Your task to perform on an android device: open app "DoorDash - Dasher" (install if not already installed) and enter user name: "resistor@inbox.com" and password: "cholera" Image 0: 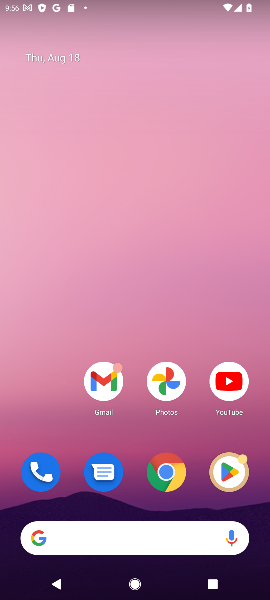
Step 0: click (229, 470)
Your task to perform on an android device: open app "DoorDash - Dasher" (install if not already installed) and enter user name: "resistor@inbox.com" and password: "cholera" Image 1: 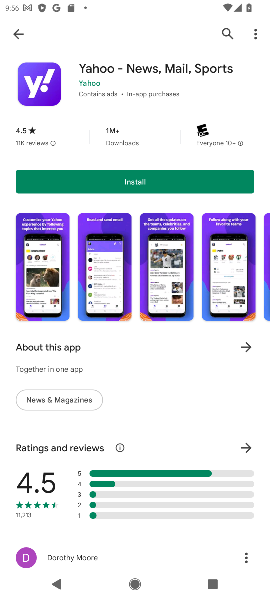
Step 1: click (229, 32)
Your task to perform on an android device: open app "DoorDash - Dasher" (install if not already installed) and enter user name: "resistor@inbox.com" and password: "cholera" Image 2: 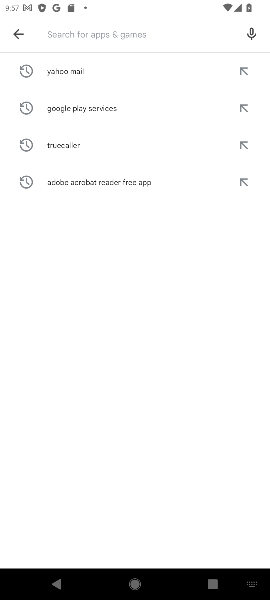
Step 2: type "doordash"
Your task to perform on an android device: open app "DoorDash - Dasher" (install if not already installed) and enter user name: "resistor@inbox.com" and password: "cholera" Image 3: 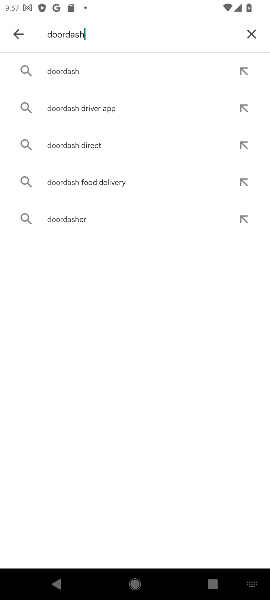
Step 3: click (99, 72)
Your task to perform on an android device: open app "DoorDash - Dasher" (install if not already installed) and enter user name: "resistor@inbox.com" and password: "cholera" Image 4: 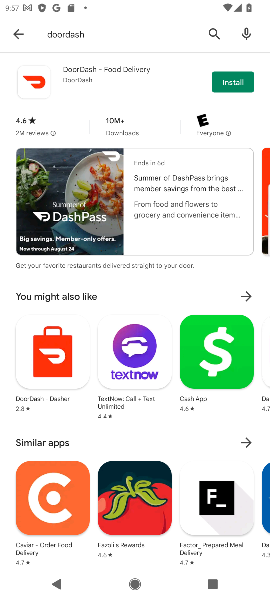
Step 4: click (210, 34)
Your task to perform on an android device: open app "DoorDash - Dasher" (install if not already installed) and enter user name: "resistor@inbox.com" and password: "cholera" Image 5: 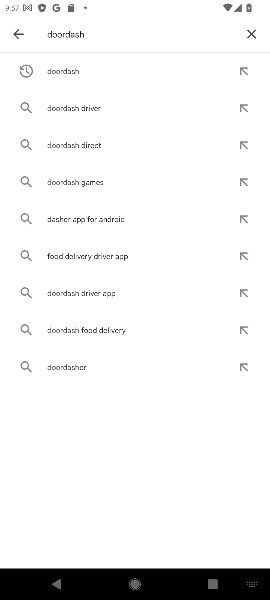
Step 5: type " - dasher"
Your task to perform on an android device: open app "DoorDash - Dasher" (install if not already installed) and enter user name: "resistor@inbox.com" and password: "cholera" Image 6: 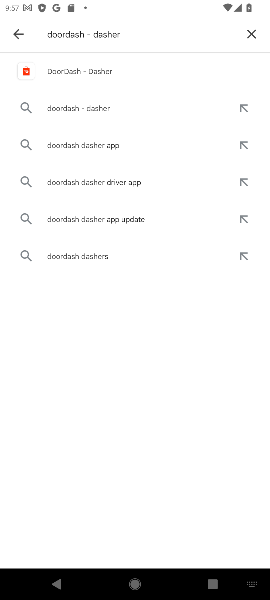
Step 6: click (110, 68)
Your task to perform on an android device: open app "DoorDash - Dasher" (install if not already installed) and enter user name: "resistor@inbox.com" and password: "cholera" Image 7: 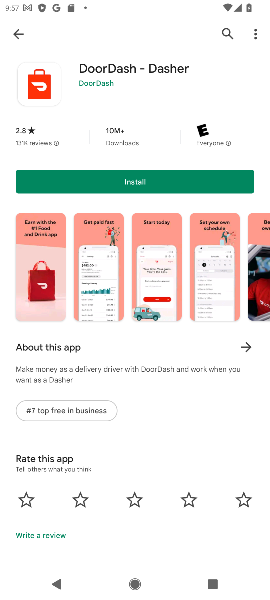
Step 7: click (191, 175)
Your task to perform on an android device: open app "DoorDash - Dasher" (install if not already installed) and enter user name: "resistor@inbox.com" and password: "cholera" Image 8: 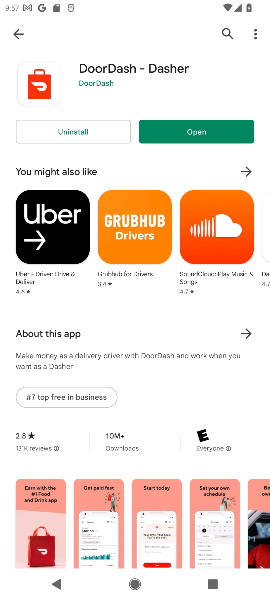
Step 8: click (185, 127)
Your task to perform on an android device: open app "DoorDash - Dasher" (install if not already installed) and enter user name: "resistor@inbox.com" and password: "cholera" Image 9: 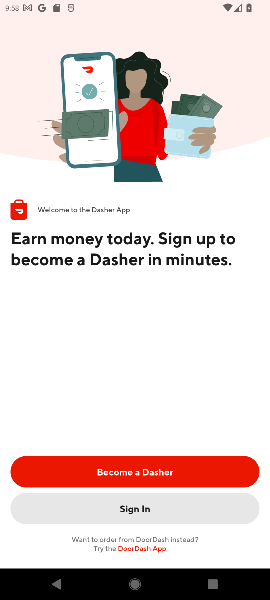
Step 9: click (138, 509)
Your task to perform on an android device: open app "DoorDash - Dasher" (install if not already installed) and enter user name: "resistor@inbox.com" and password: "cholera" Image 10: 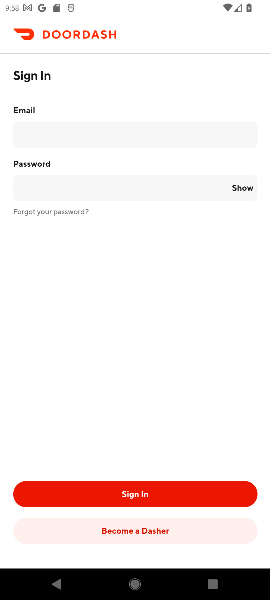
Step 10: click (112, 144)
Your task to perform on an android device: open app "DoorDash - Dasher" (install if not already installed) and enter user name: "resistor@inbox.com" and password: "cholera" Image 11: 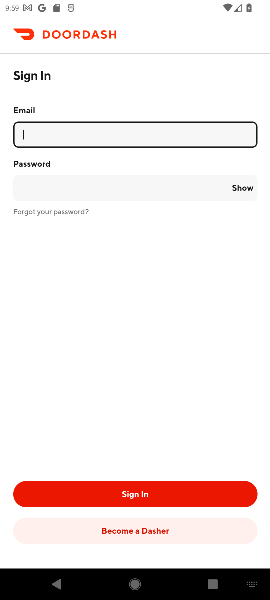
Step 11: type "resistor@inbox.com"
Your task to perform on an android device: open app "DoorDash - Dasher" (install if not already installed) and enter user name: "resistor@inbox.com" and password: "cholera" Image 12: 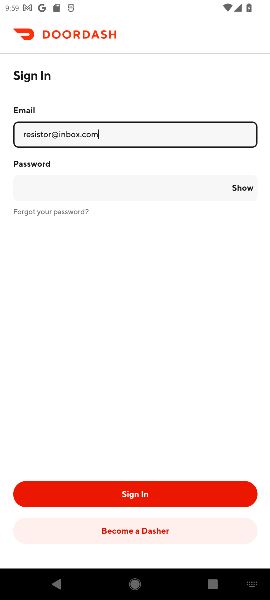
Step 12: click (129, 180)
Your task to perform on an android device: open app "DoorDash - Dasher" (install if not already installed) and enter user name: "resistor@inbox.com" and password: "cholera" Image 13: 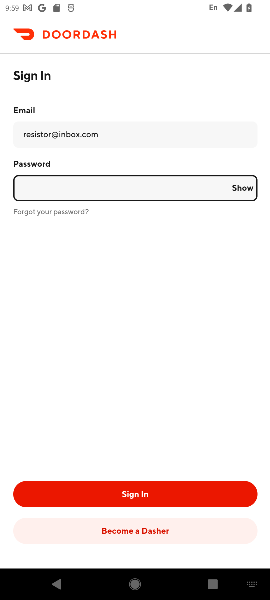
Step 13: type "cholera"
Your task to perform on an android device: open app "DoorDash - Dasher" (install if not already installed) and enter user name: "resistor@inbox.com" and password: "cholera" Image 14: 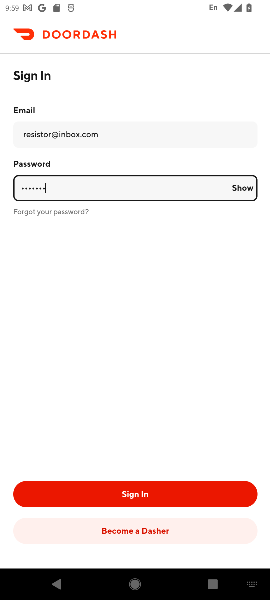
Step 14: task complete